Your task to perform on an android device: When is my next meeting? Image 0: 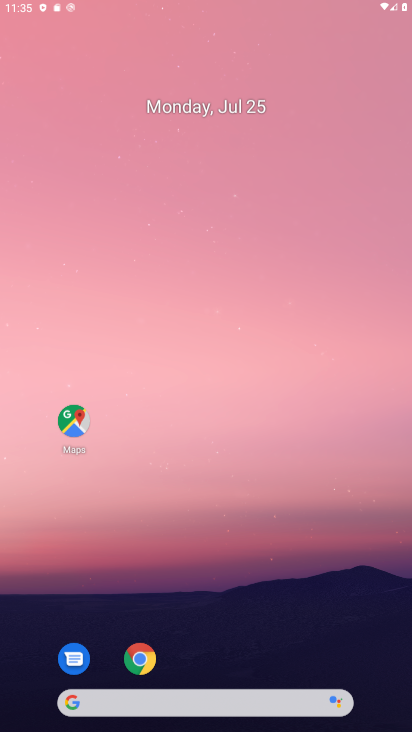
Step 0: press home button
Your task to perform on an android device: When is my next meeting? Image 1: 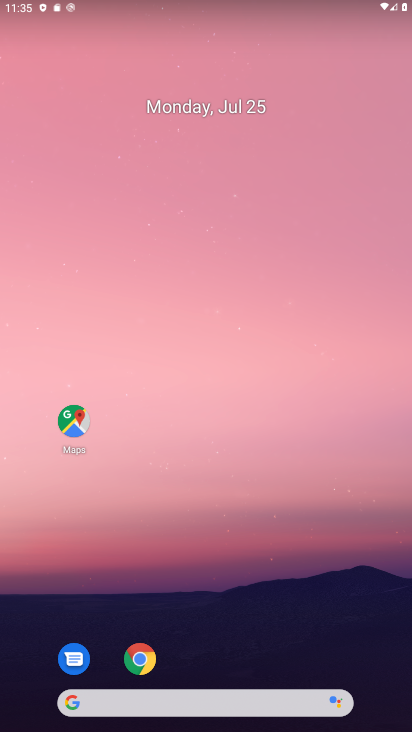
Step 1: drag from (314, 633) to (8, 307)
Your task to perform on an android device: When is my next meeting? Image 2: 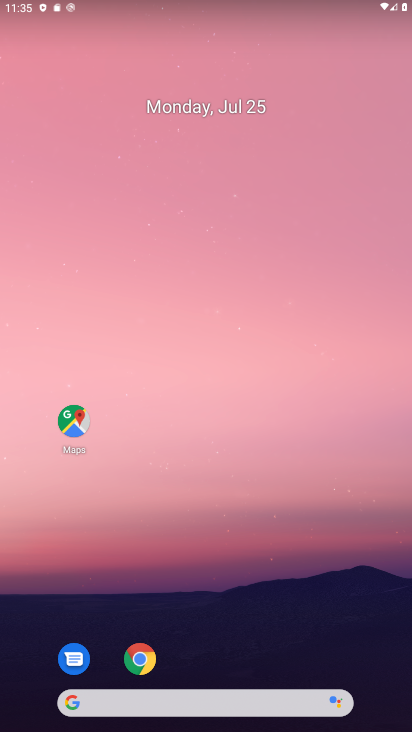
Step 2: drag from (253, 633) to (279, 0)
Your task to perform on an android device: When is my next meeting? Image 3: 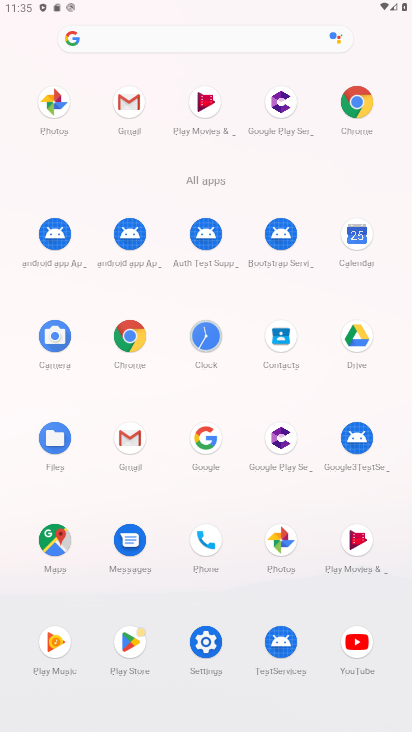
Step 3: click (341, 256)
Your task to perform on an android device: When is my next meeting? Image 4: 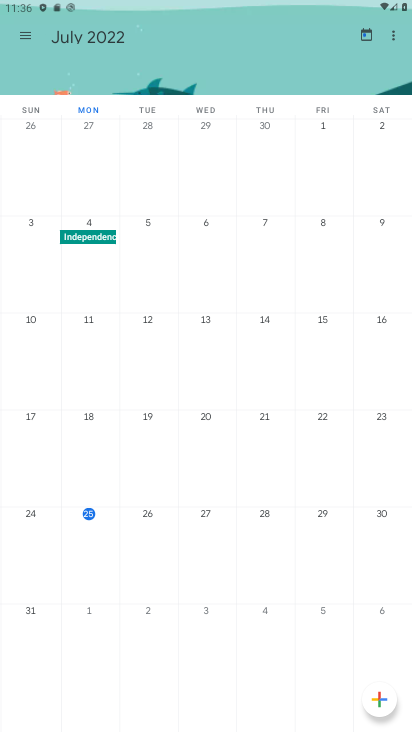
Step 4: click (141, 520)
Your task to perform on an android device: When is my next meeting? Image 5: 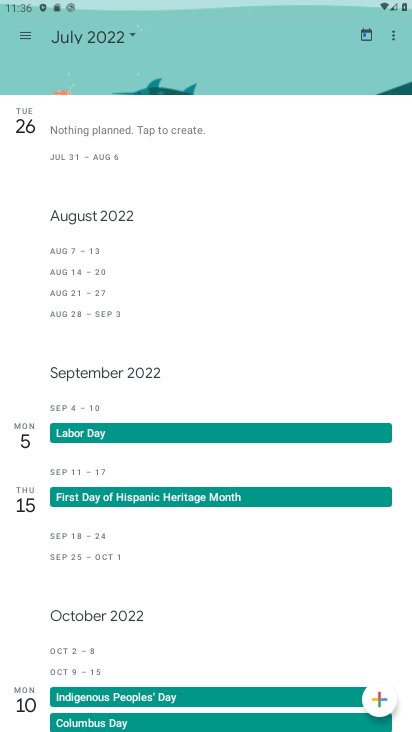
Step 5: task complete